Your task to perform on an android device: Do I have any events this weekend? Image 0: 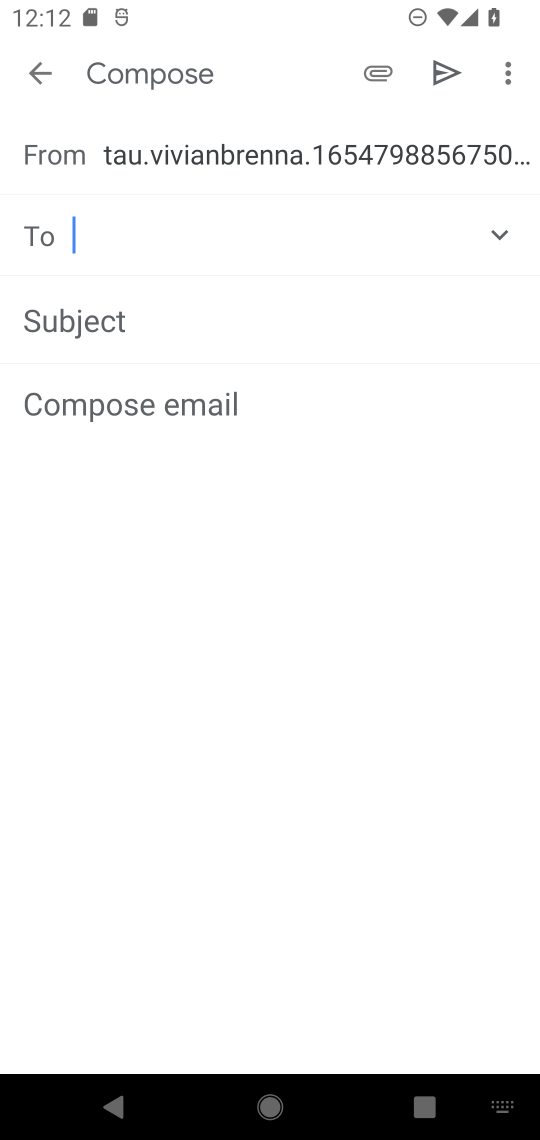
Step 0: press home button
Your task to perform on an android device: Do I have any events this weekend? Image 1: 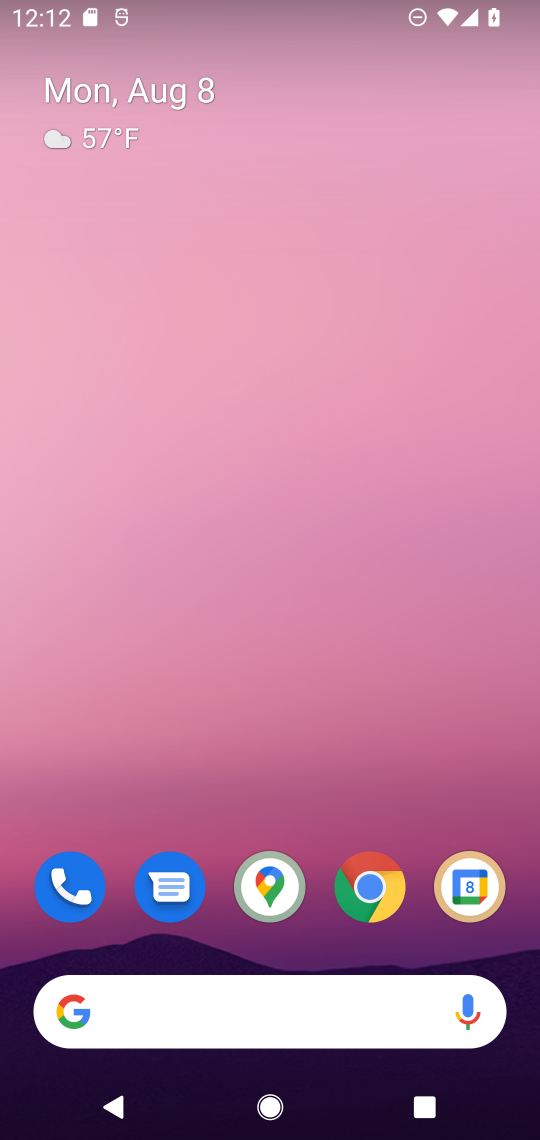
Step 1: drag from (307, 795) to (234, 42)
Your task to perform on an android device: Do I have any events this weekend? Image 2: 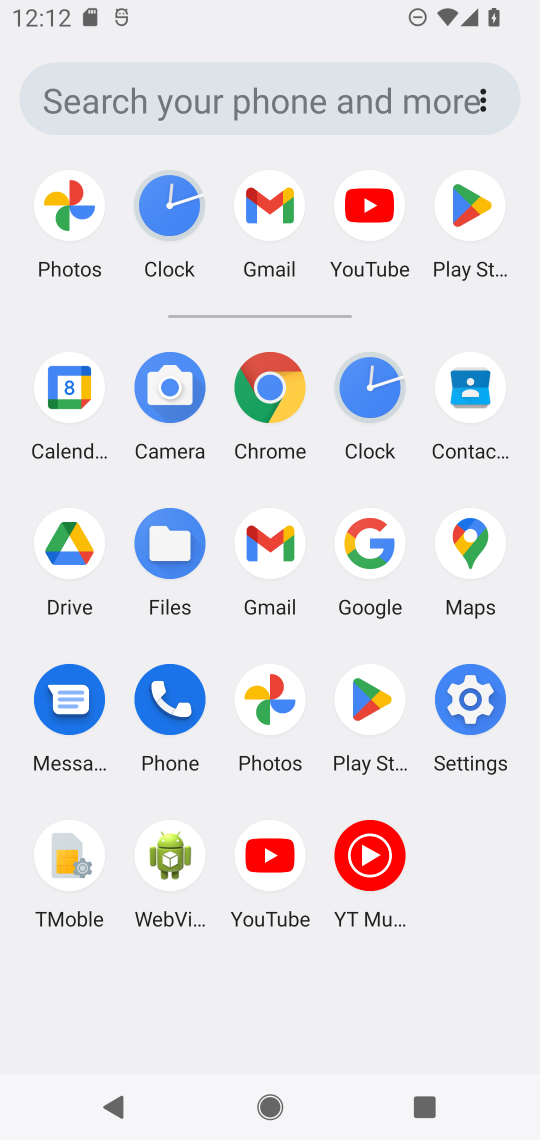
Step 2: click (80, 386)
Your task to perform on an android device: Do I have any events this weekend? Image 3: 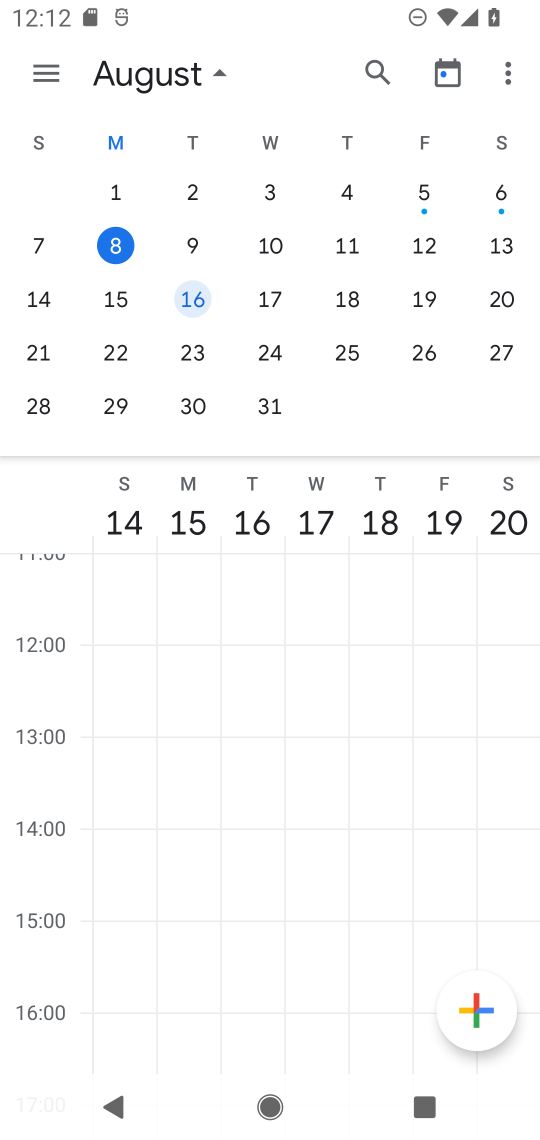
Step 3: click (191, 236)
Your task to perform on an android device: Do I have any events this weekend? Image 4: 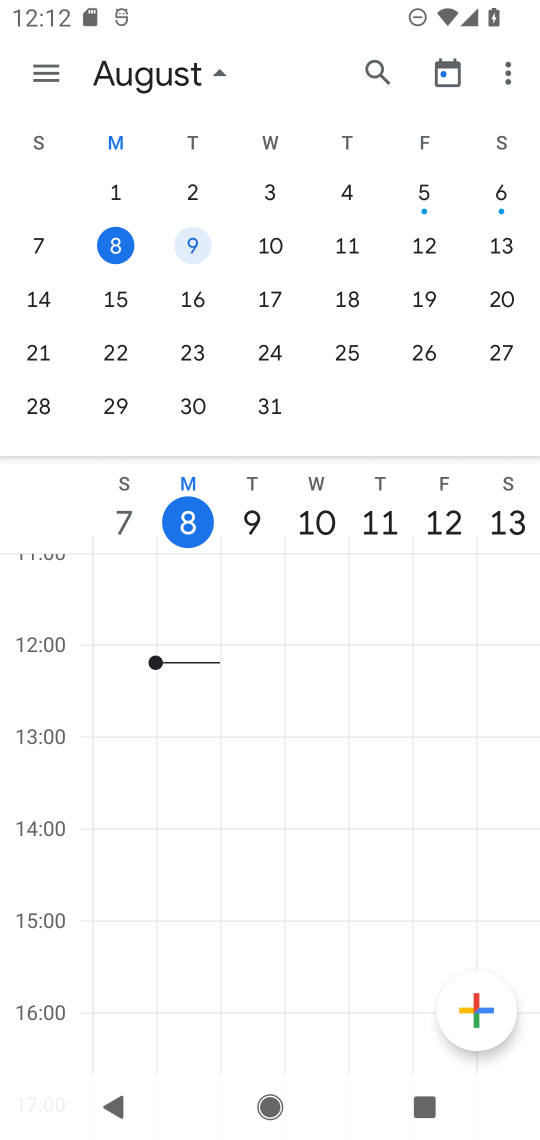
Step 4: task complete